Your task to perform on an android device: Open notification settings Image 0: 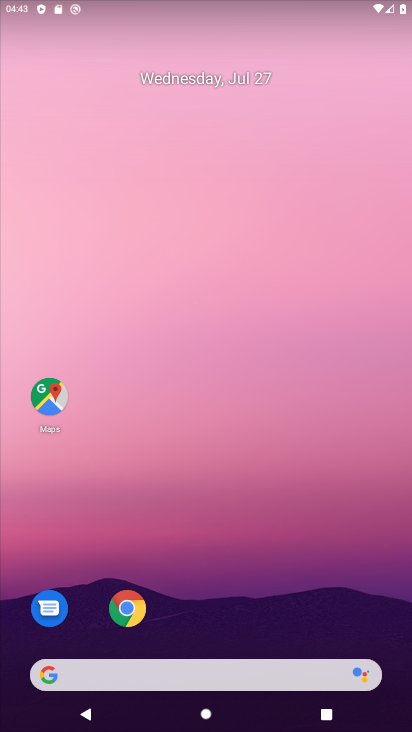
Step 0: press home button
Your task to perform on an android device: Open notification settings Image 1: 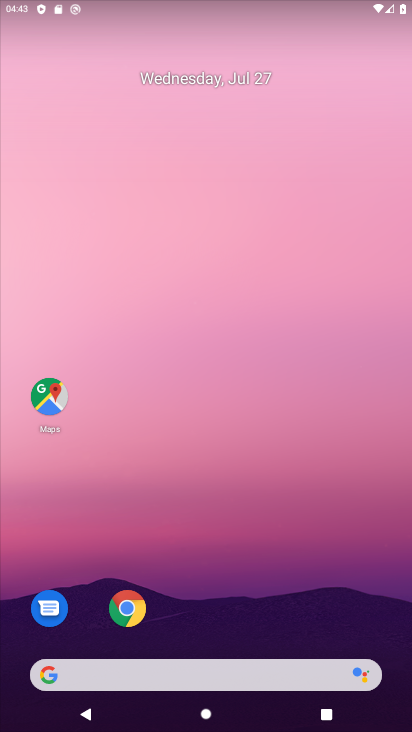
Step 1: drag from (257, 625) to (265, 18)
Your task to perform on an android device: Open notification settings Image 2: 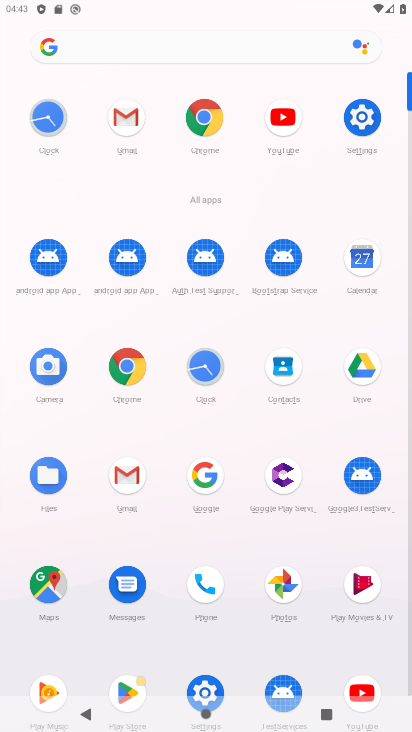
Step 2: click (362, 127)
Your task to perform on an android device: Open notification settings Image 3: 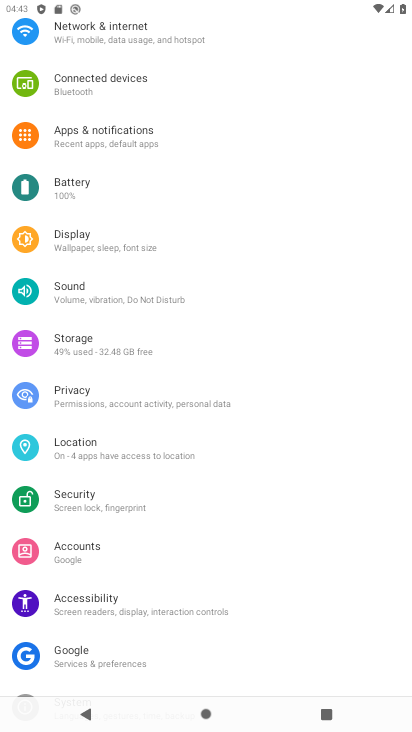
Step 3: click (85, 131)
Your task to perform on an android device: Open notification settings Image 4: 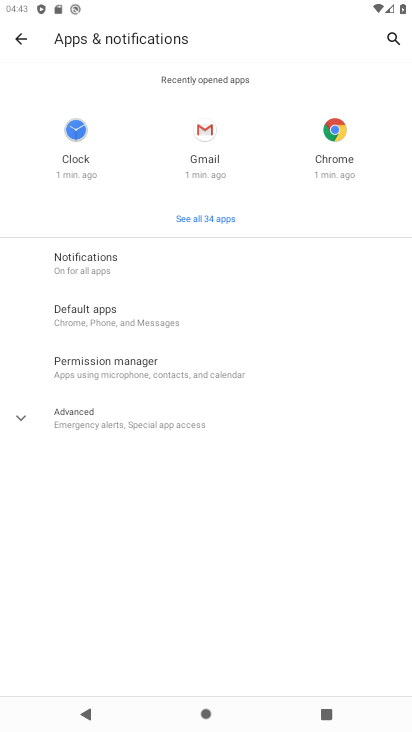
Step 4: click (78, 259)
Your task to perform on an android device: Open notification settings Image 5: 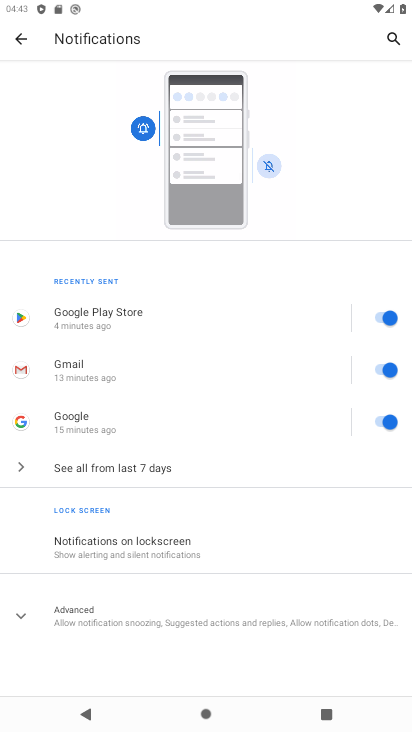
Step 5: task complete